Your task to perform on an android device: Open network settings Image 0: 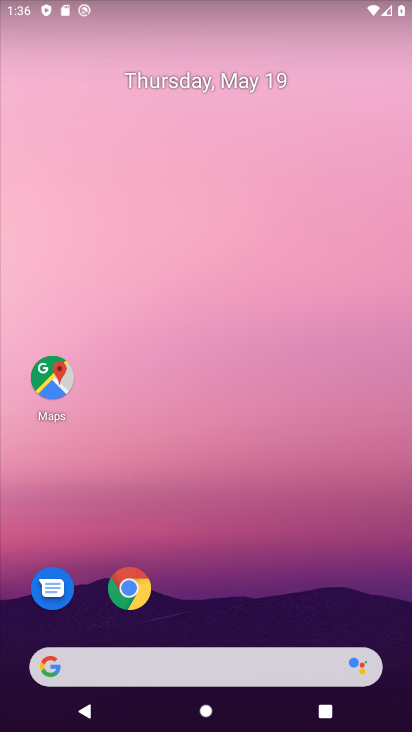
Step 0: drag from (221, 603) to (337, 126)
Your task to perform on an android device: Open network settings Image 1: 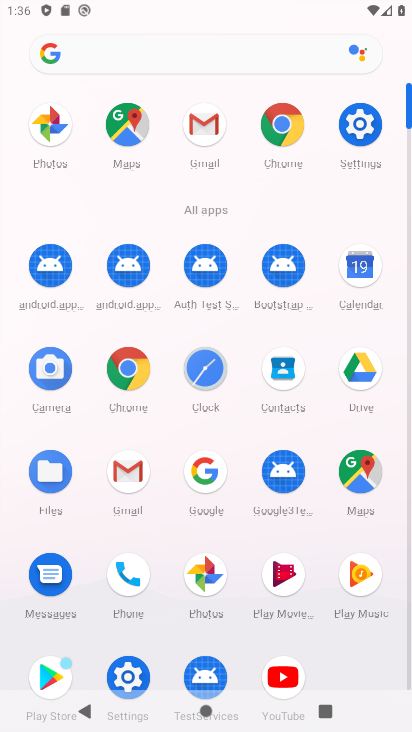
Step 1: click (368, 123)
Your task to perform on an android device: Open network settings Image 2: 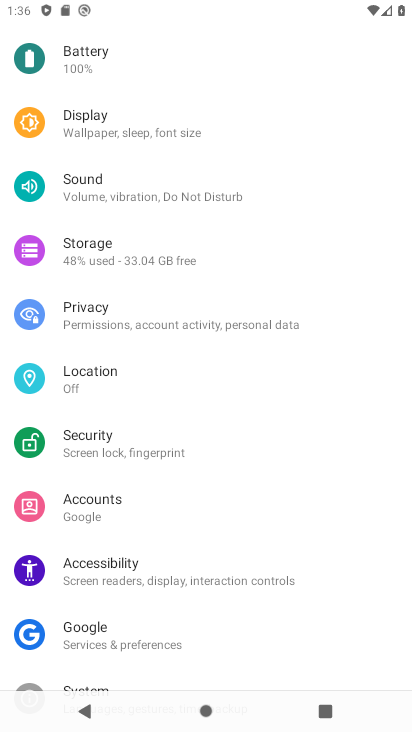
Step 2: drag from (190, 130) to (143, 595)
Your task to perform on an android device: Open network settings Image 3: 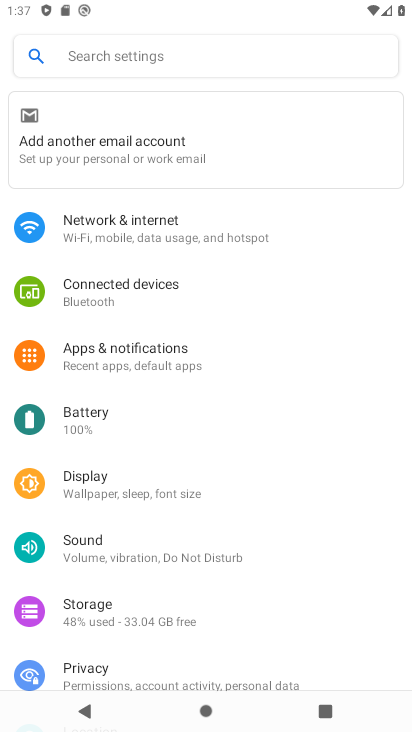
Step 3: click (168, 236)
Your task to perform on an android device: Open network settings Image 4: 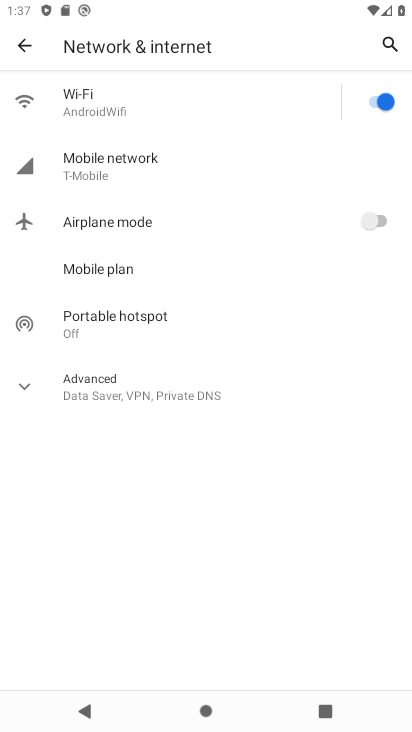
Step 4: click (93, 405)
Your task to perform on an android device: Open network settings Image 5: 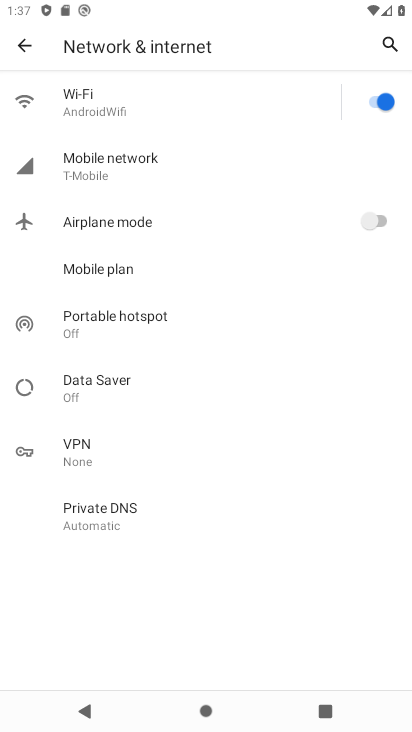
Step 5: task complete